Your task to perform on an android device: turn on the 24-hour format for clock Image 0: 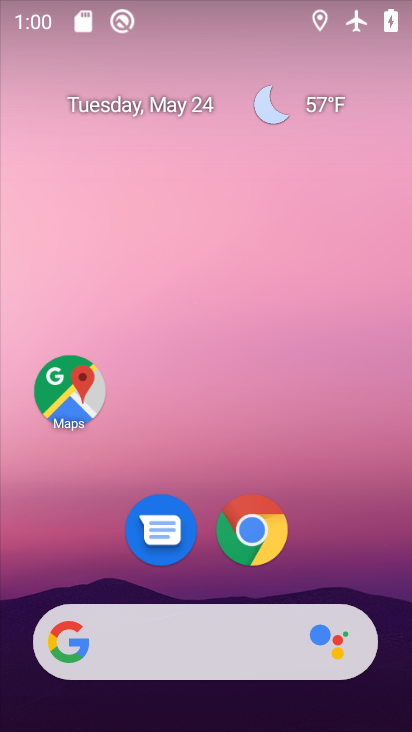
Step 0: drag from (301, 580) to (306, 94)
Your task to perform on an android device: turn on the 24-hour format for clock Image 1: 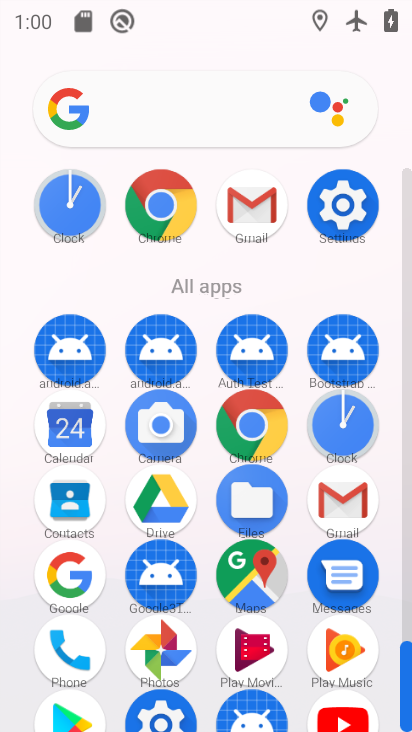
Step 1: click (338, 430)
Your task to perform on an android device: turn on the 24-hour format for clock Image 2: 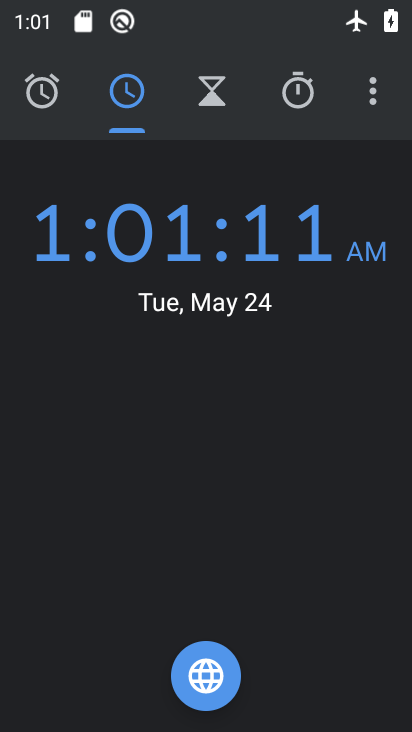
Step 2: click (375, 100)
Your task to perform on an android device: turn on the 24-hour format for clock Image 3: 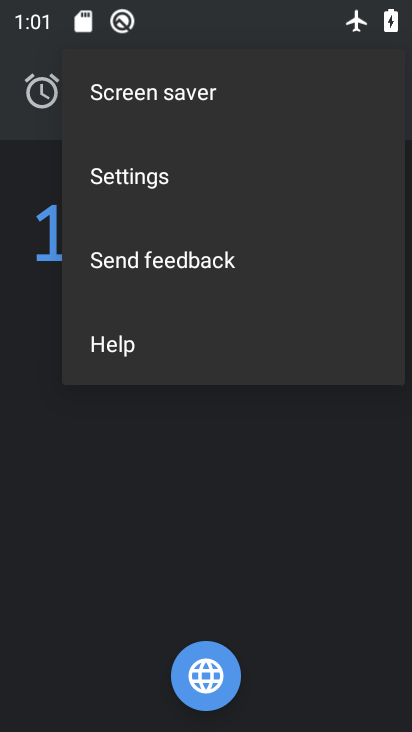
Step 3: click (236, 193)
Your task to perform on an android device: turn on the 24-hour format for clock Image 4: 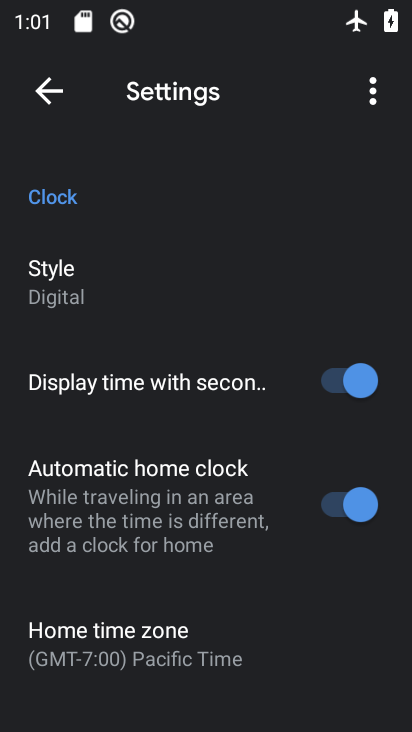
Step 4: drag from (228, 607) to (244, 203)
Your task to perform on an android device: turn on the 24-hour format for clock Image 5: 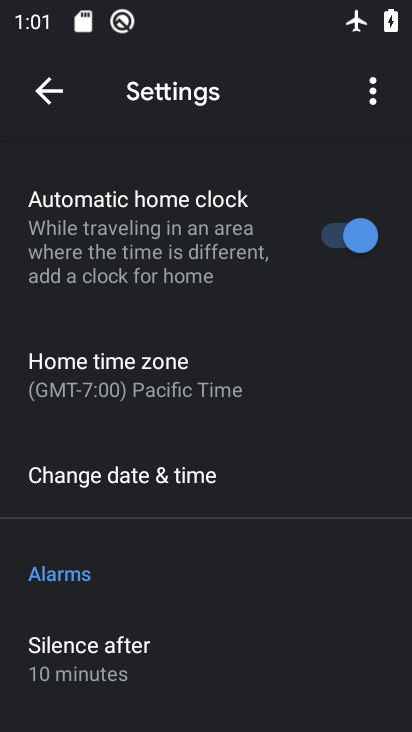
Step 5: click (153, 475)
Your task to perform on an android device: turn on the 24-hour format for clock Image 6: 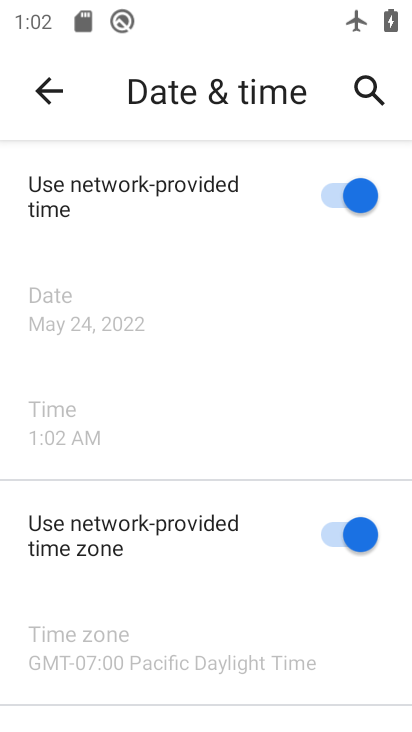
Step 6: drag from (286, 641) to (283, 296)
Your task to perform on an android device: turn on the 24-hour format for clock Image 7: 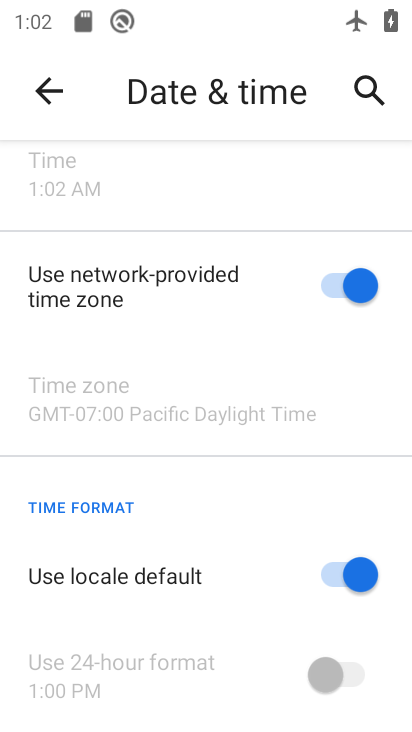
Step 7: drag from (152, 623) to (120, 267)
Your task to perform on an android device: turn on the 24-hour format for clock Image 8: 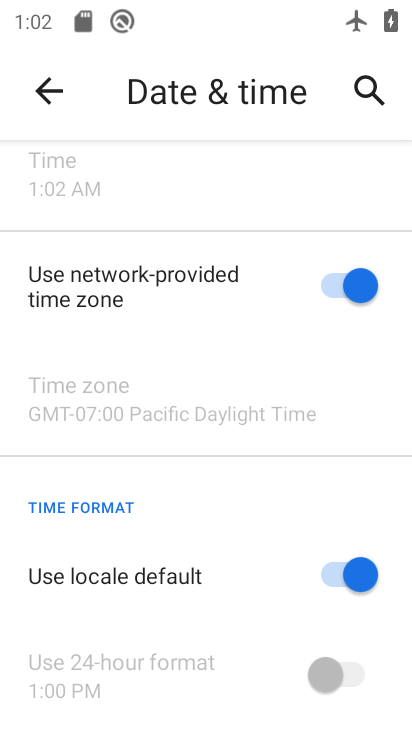
Step 8: drag from (211, 621) to (252, 225)
Your task to perform on an android device: turn on the 24-hour format for clock Image 9: 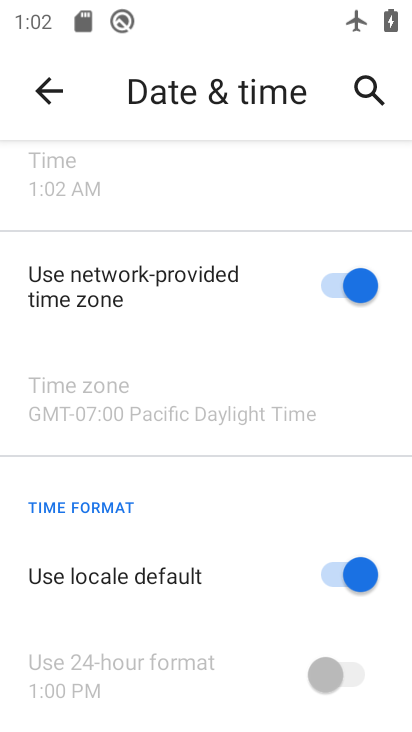
Step 9: click (356, 574)
Your task to perform on an android device: turn on the 24-hour format for clock Image 10: 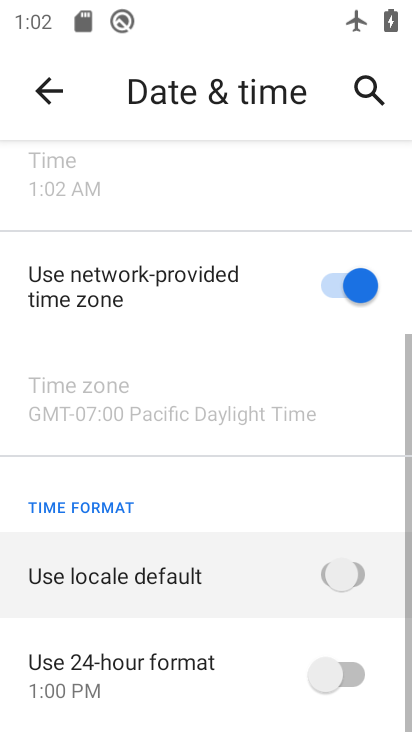
Step 10: click (327, 653)
Your task to perform on an android device: turn on the 24-hour format for clock Image 11: 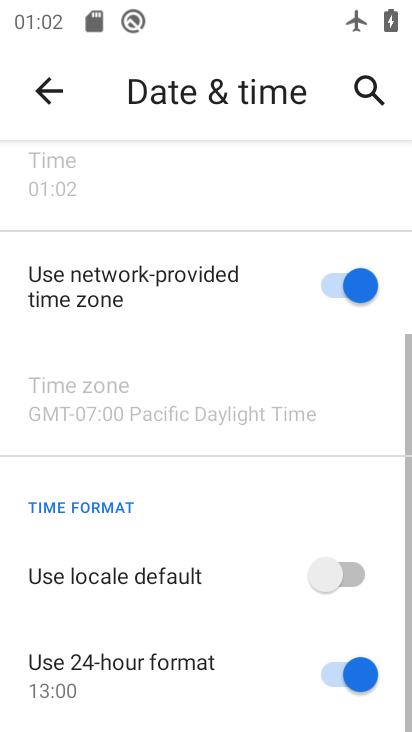
Step 11: task complete